Your task to perform on an android device: Clear all items from cart on amazon.com. Search for "bose soundlink mini" on amazon.com, select the first entry, and add it to the cart. Image 0: 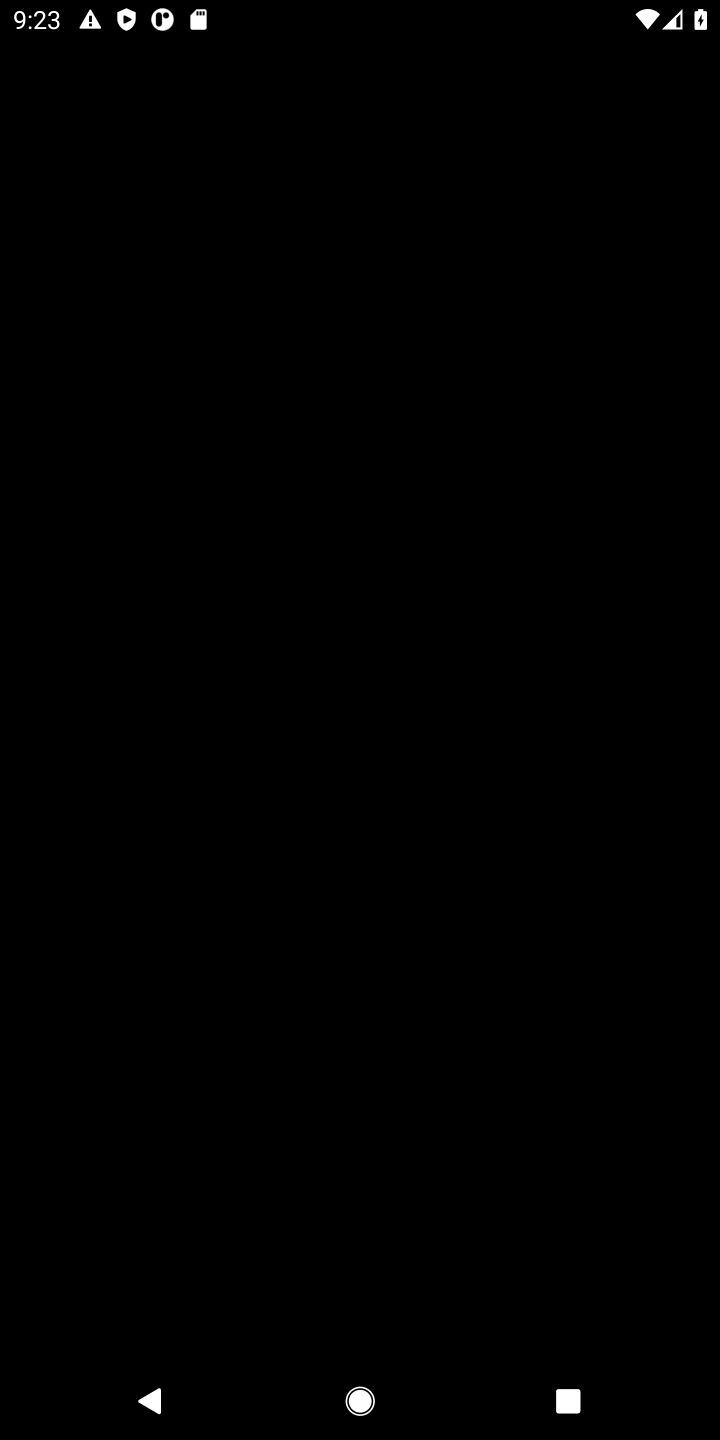
Step 0: press home button
Your task to perform on an android device: Clear all items from cart on amazon.com. Search for "bose soundlink mini" on amazon.com, select the first entry, and add it to the cart. Image 1: 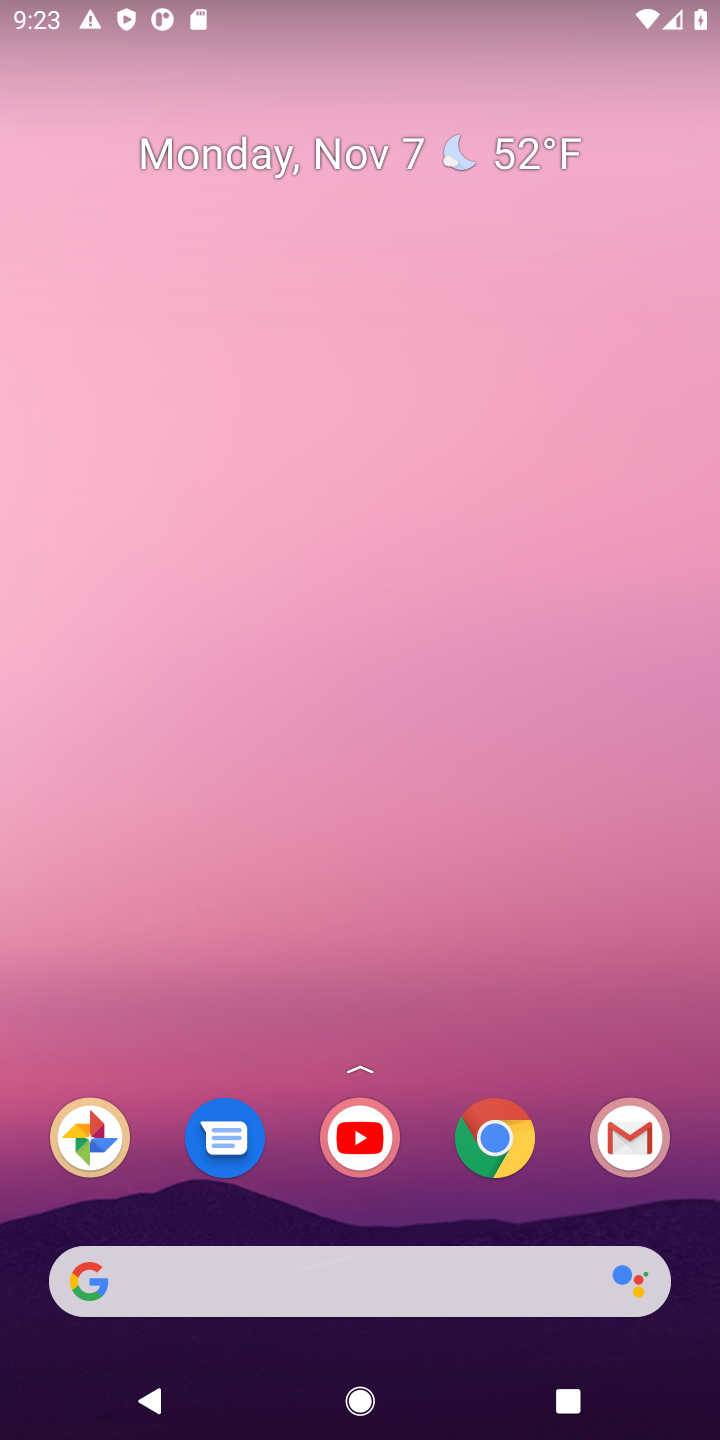
Step 1: drag from (423, 1148) to (367, 136)
Your task to perform on an android device: Clear all items from cart on amazon.com. Search for "bose soundlink mini" on amazon.com, select the first entry, and add it to the cart. Image 2: 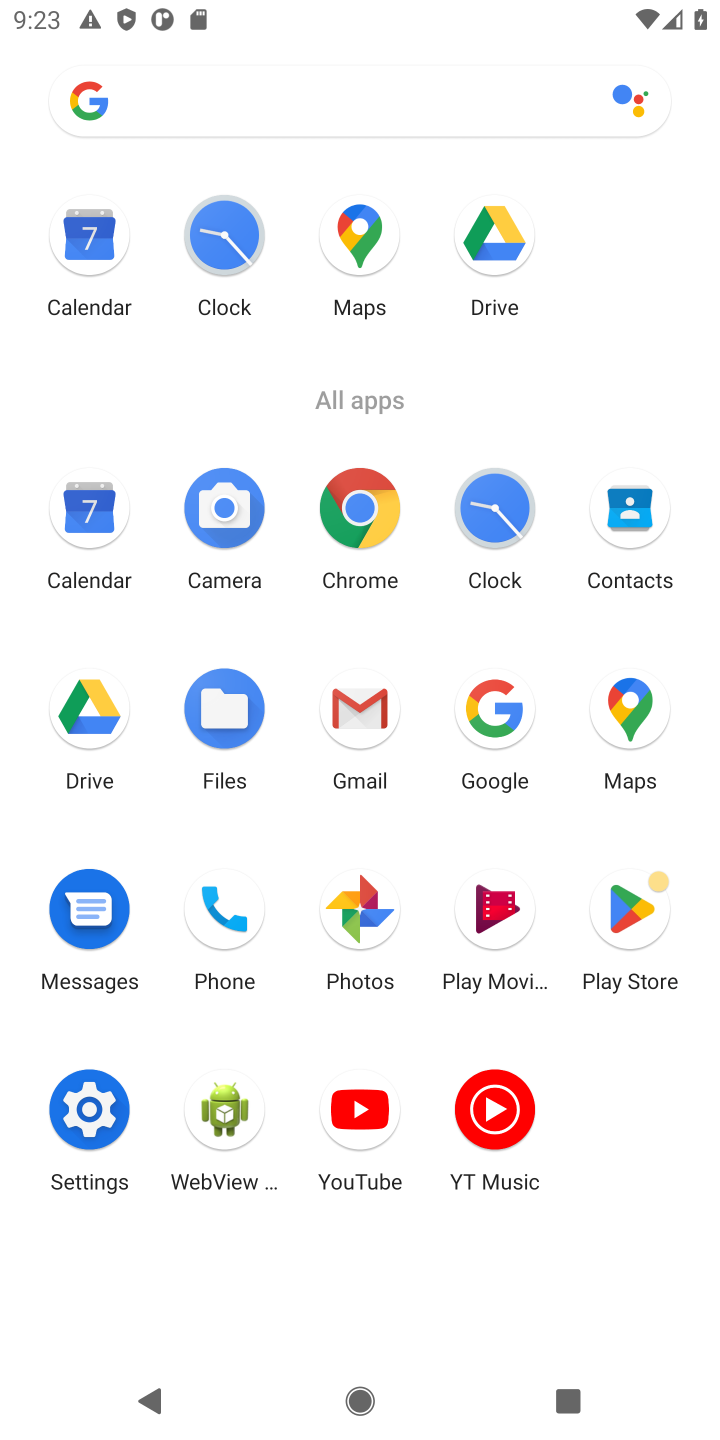
Step 2: click (361, 525)
Your task to perform on an android device: Clear all items from cart on amazon.com. Search for "bose soundlink mini" on amazon.com, select the first entry, and add it to the cart. Image 3: 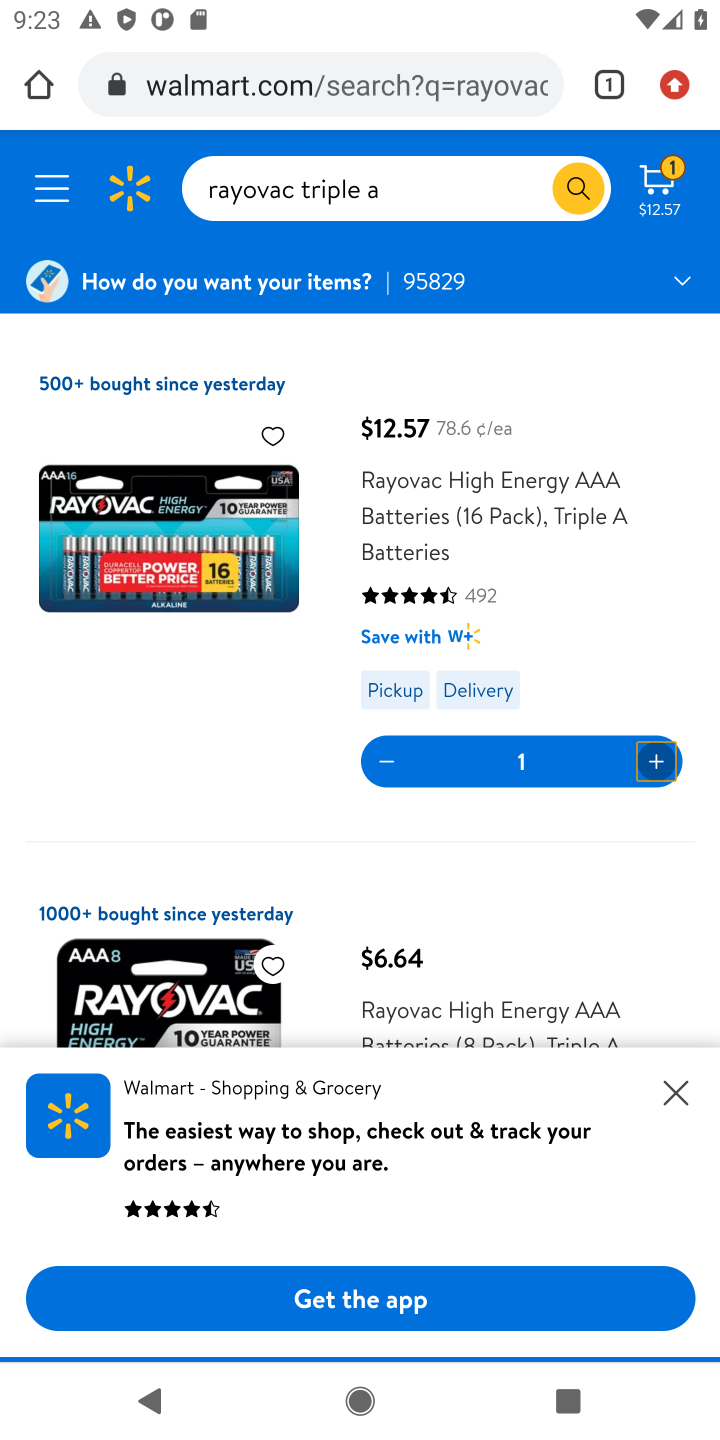
Step 3: click (375, 90)
Your task to perform on an android device: Clear all items from cart on amazon.com. Search for "bose soundlink mini" on amazon.com, select the first entry, and add it to the cart. Image 4: 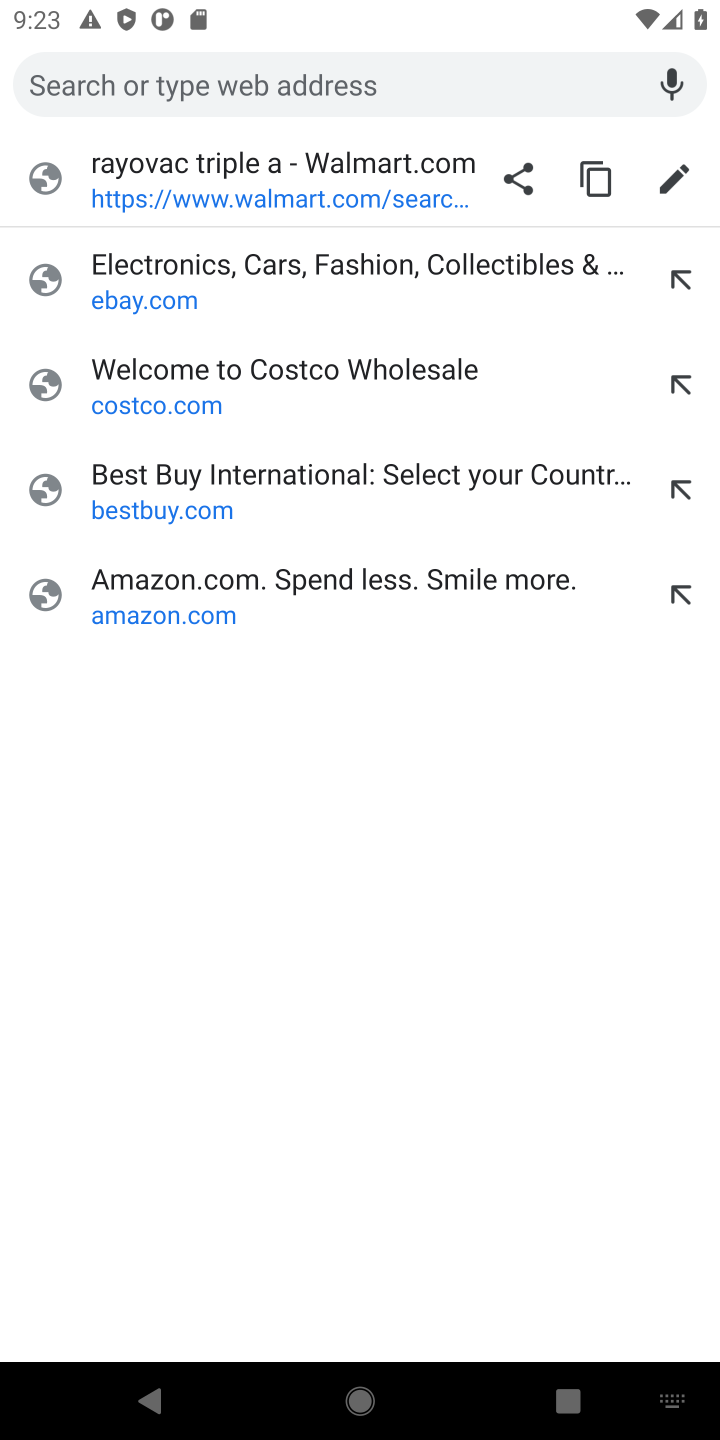
Step 4: type "amazon.com"
Your task to perform on an android device: Clear all items from cart on amazon.com. Search for "bose soundlink mini" on amazon.com, select the first entry, and add it to the cart. Image 5: 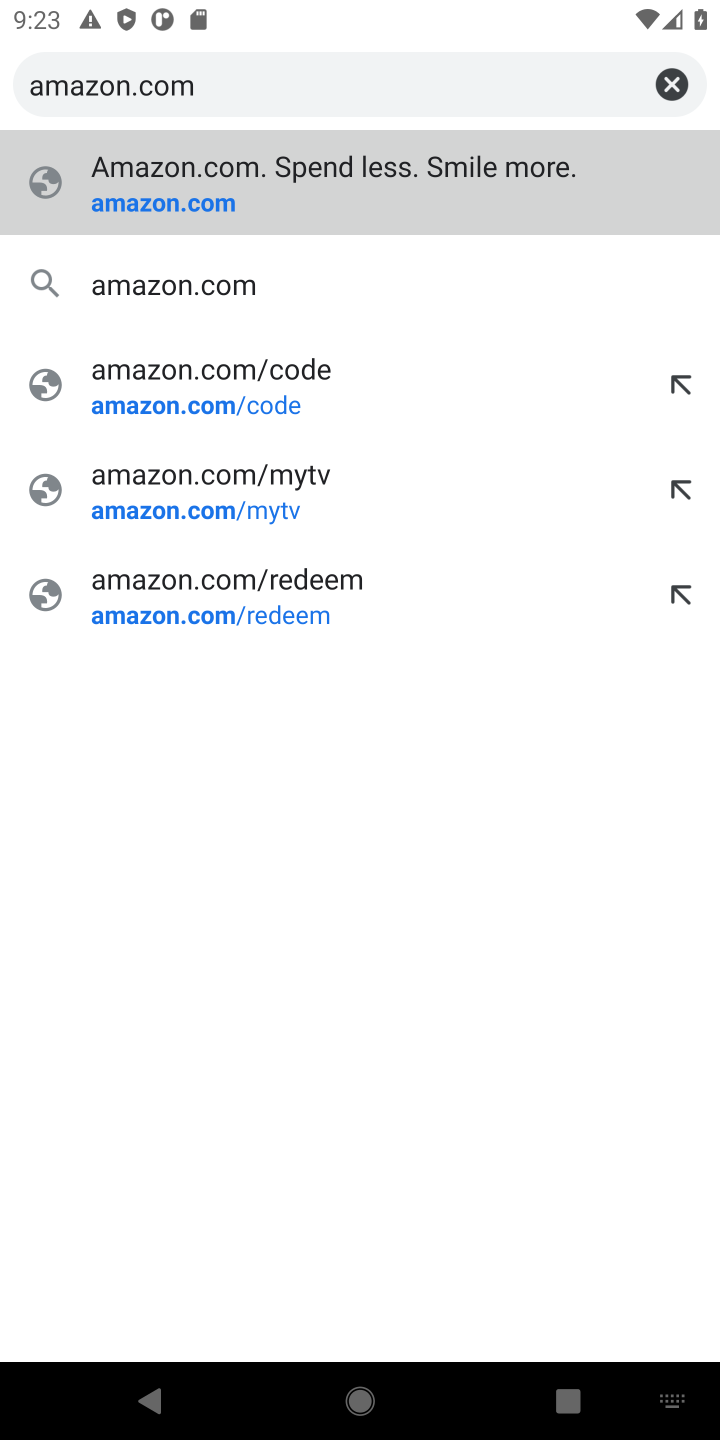
Step 5: press enter
Your task to perform on an android device: Clear all items from cart on amazon.com. Search for "bose soundlink mini" on amazon.com, select the first entry, and add it to the cart. Image 6: 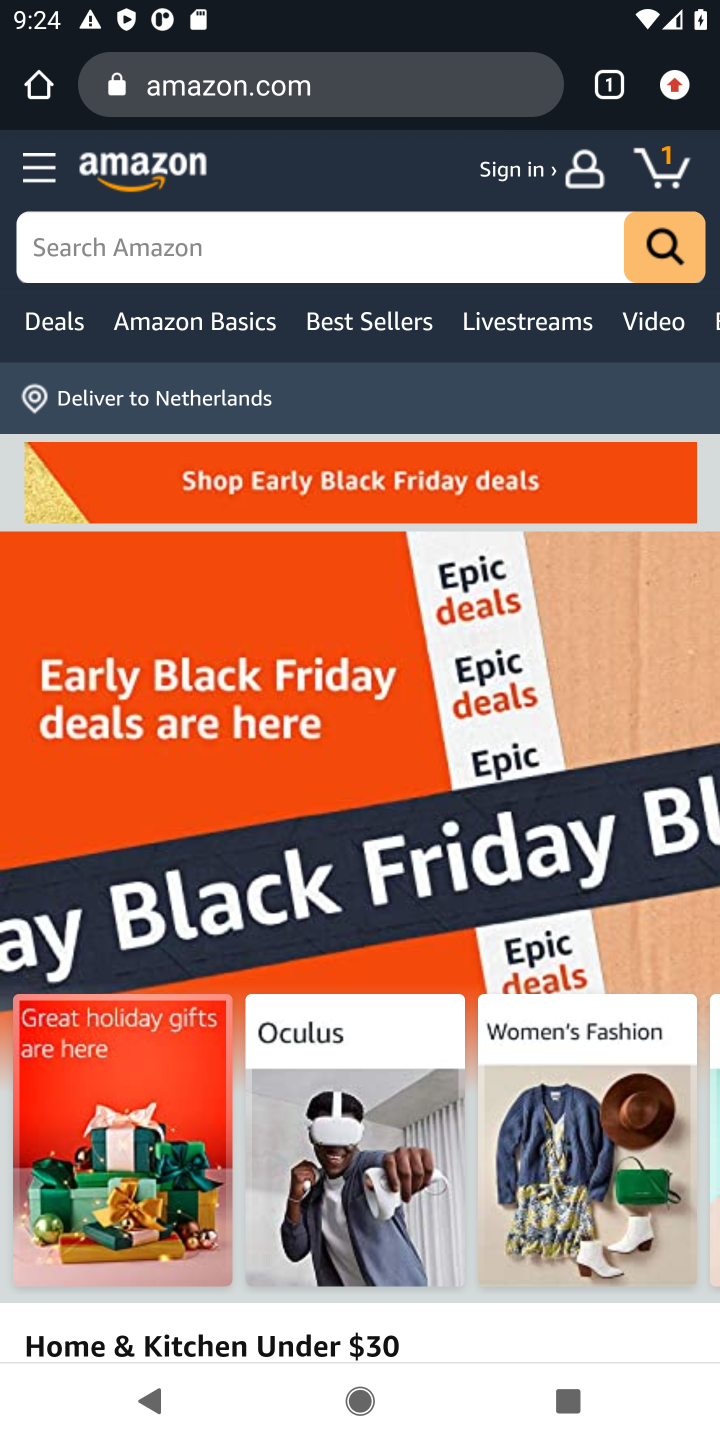
Step 6: click (652, 172)
Your task to perform on an android device: Clear all items from cart on amazon.com. Search for "bose soundlink mini" on amazon.com, select the first entry, and add it to the cart. Image 7: 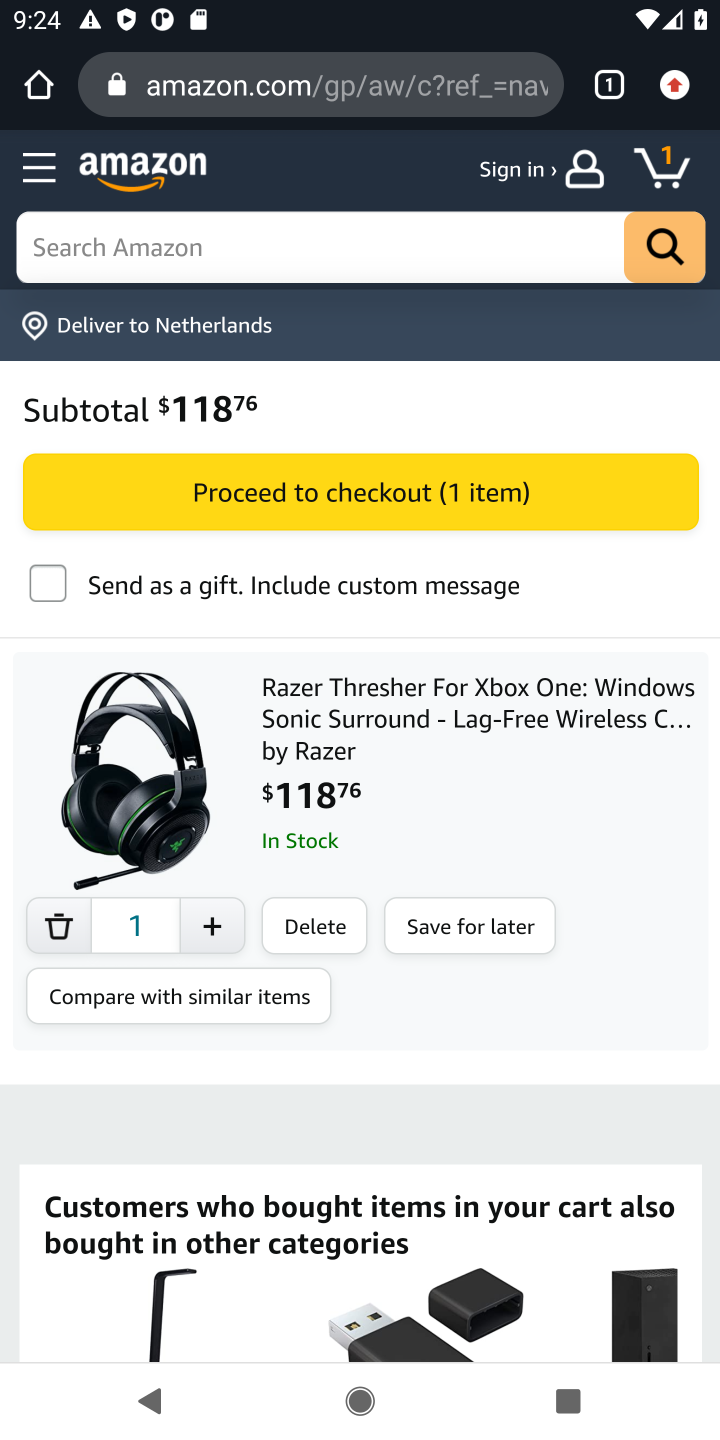
Step 7: click (55, 924)
Your task to perform on an android device: Clear all items from cart on amazon.com. Search for "bose soundlink mini" on amazon.com, select the first entry, and add it to the cart. Image 8: 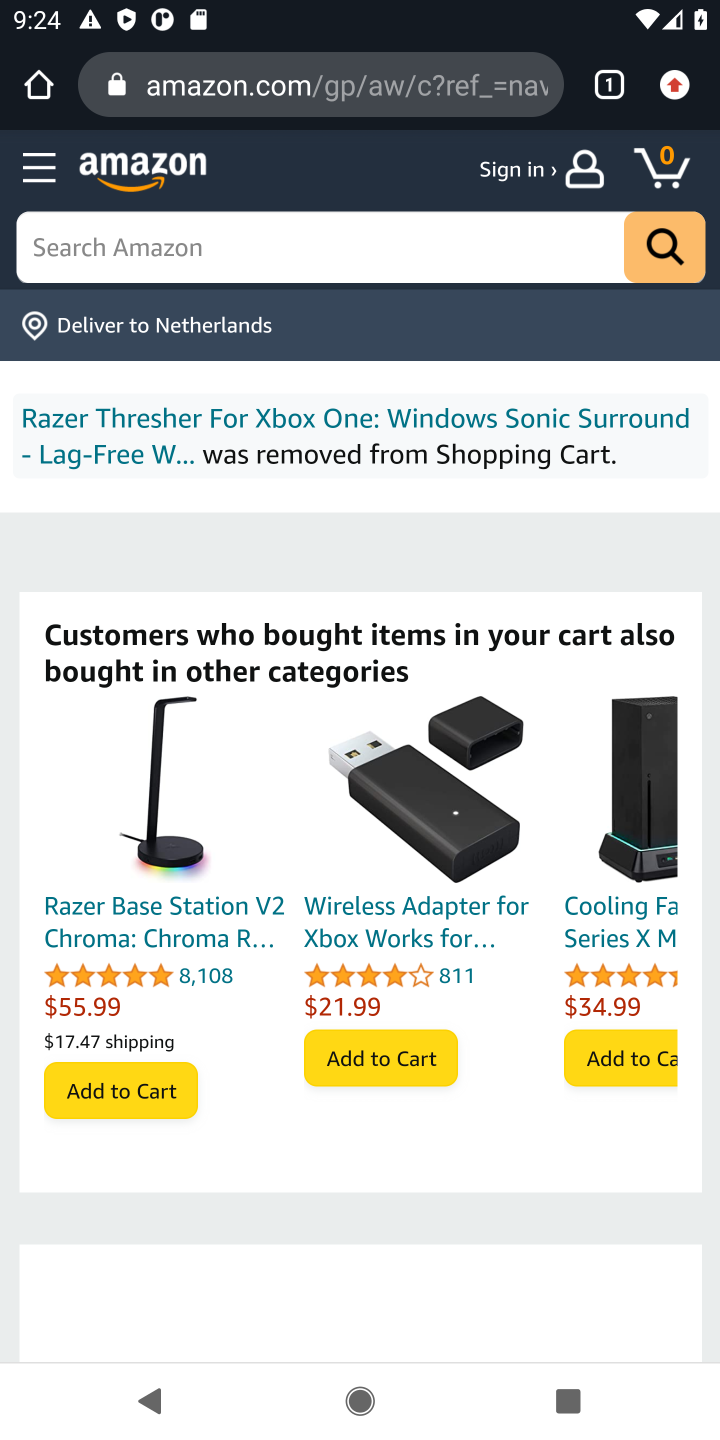
Step 8: click (457, 229)
Your task to perform on an android device: Clear all items from cart on amazon.com. Search for "bose soundlink mini" on amazon.com, select the first entry, and add it to the cart. Image 9: 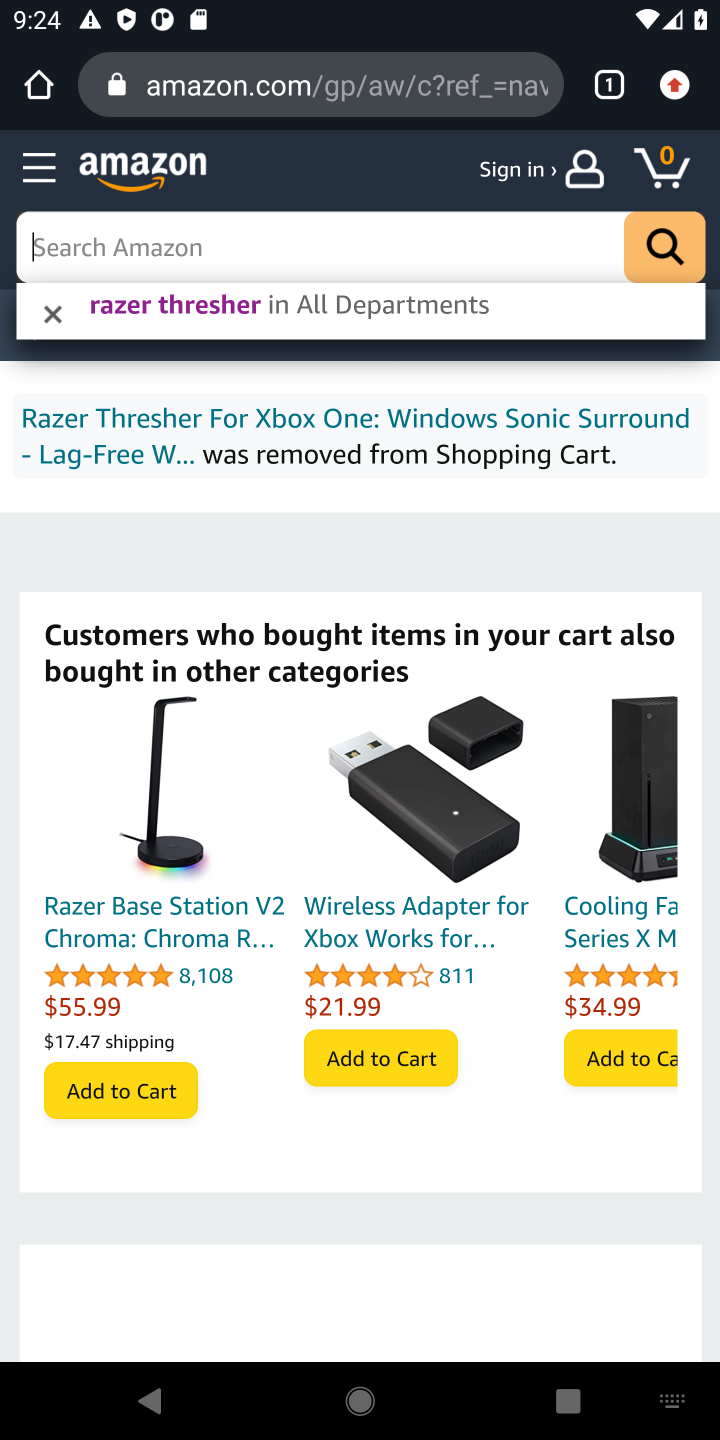
Step 9: type "bose soundlink mini"
Your task to perform on an android device: Clear all items from cart on amazon.com. Search for "bose soundlink mini" on amazon.com, select the first entry, and add it to the cart. Image 10: 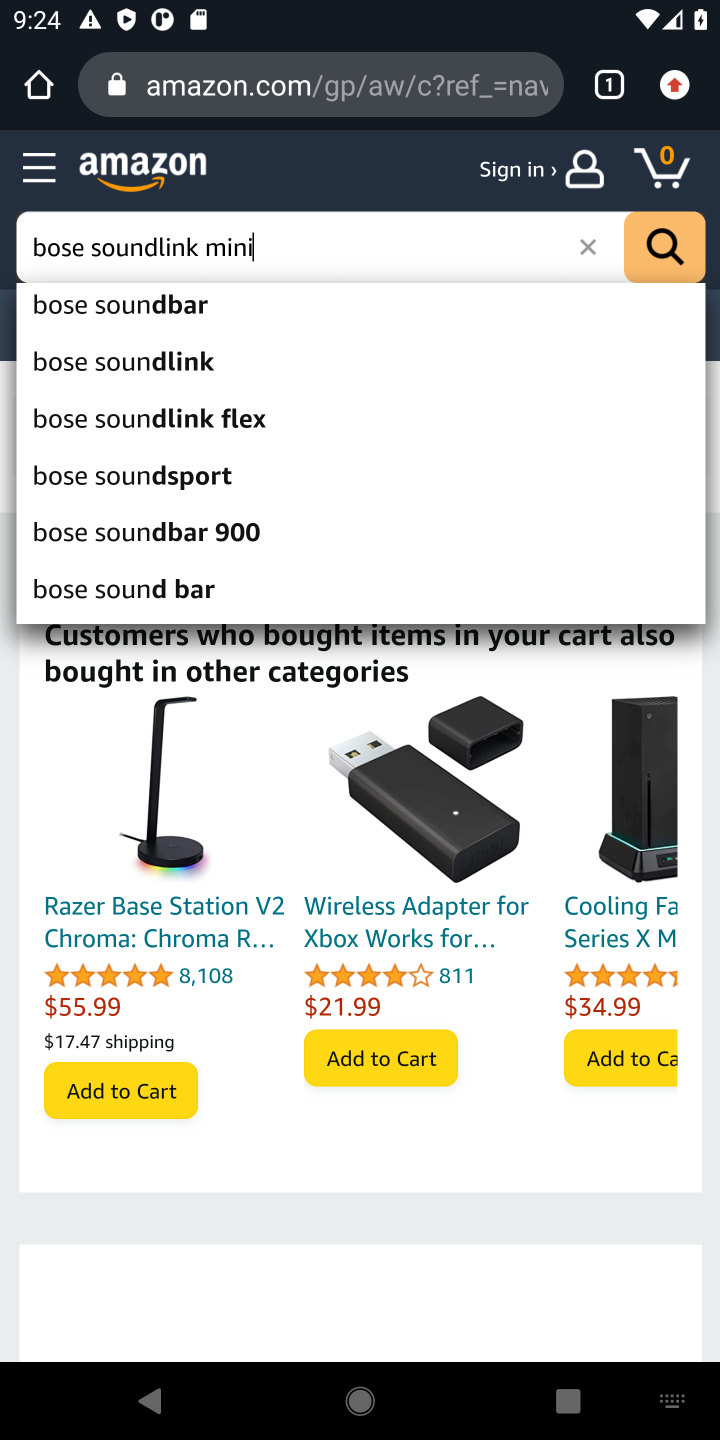
Step 10: press enter
Your task to perform on an android device: Clear all items from cart on amazon.com. Search for "bose soundlink mini" on amazon.com, select the first entry, and add it to the cart. Image 11: 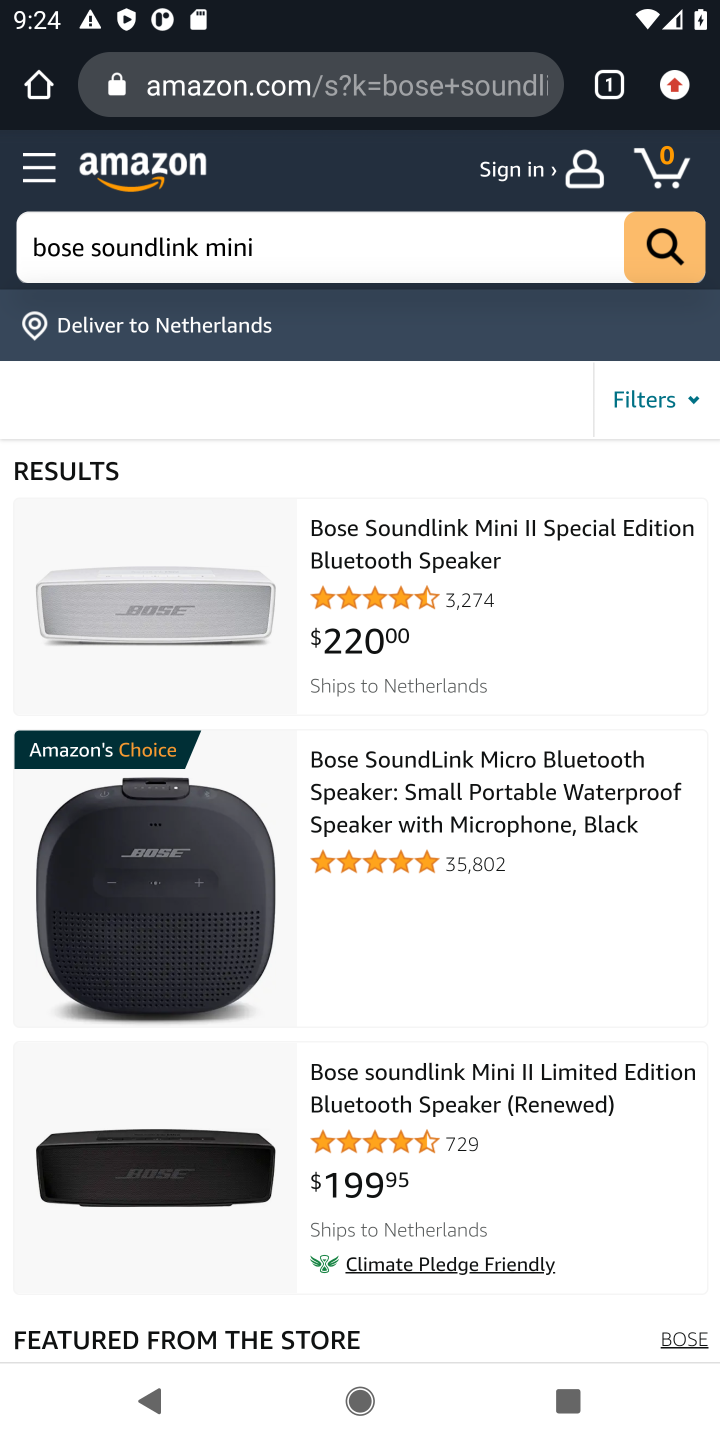
Step 11: click (244, 604)
Your task to perform on an android device: Clear all items from cart on amazon.com. Search for "bose soundlink mini" on amazon.com, select the first entry, and add it to the cart. Image 12: 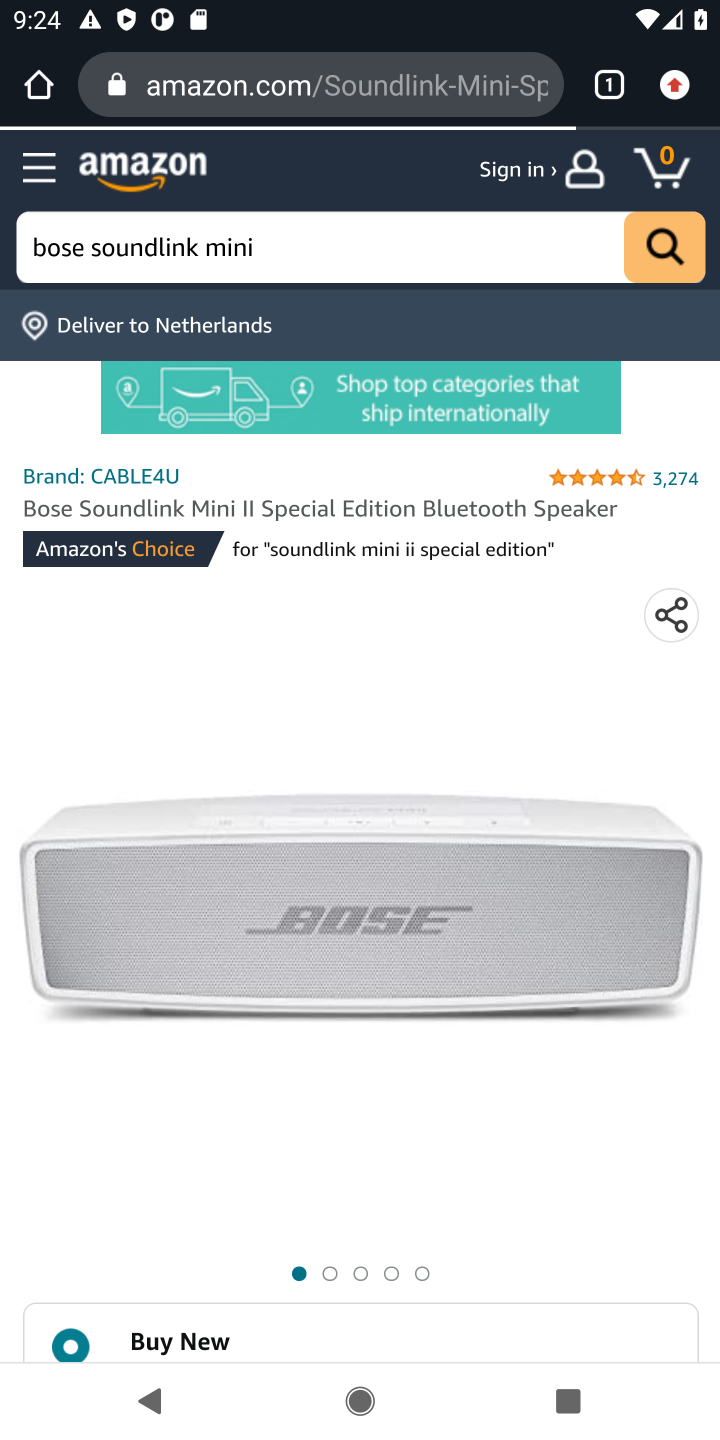
Step 12: drag from (125, 720) to (95, 355)
Your task to perform on an android device: Clear all items from cart on amazon.com. Search for "bose soundlink mini" on amazon.com, select the first entry, and add it to the cart. Image 13: 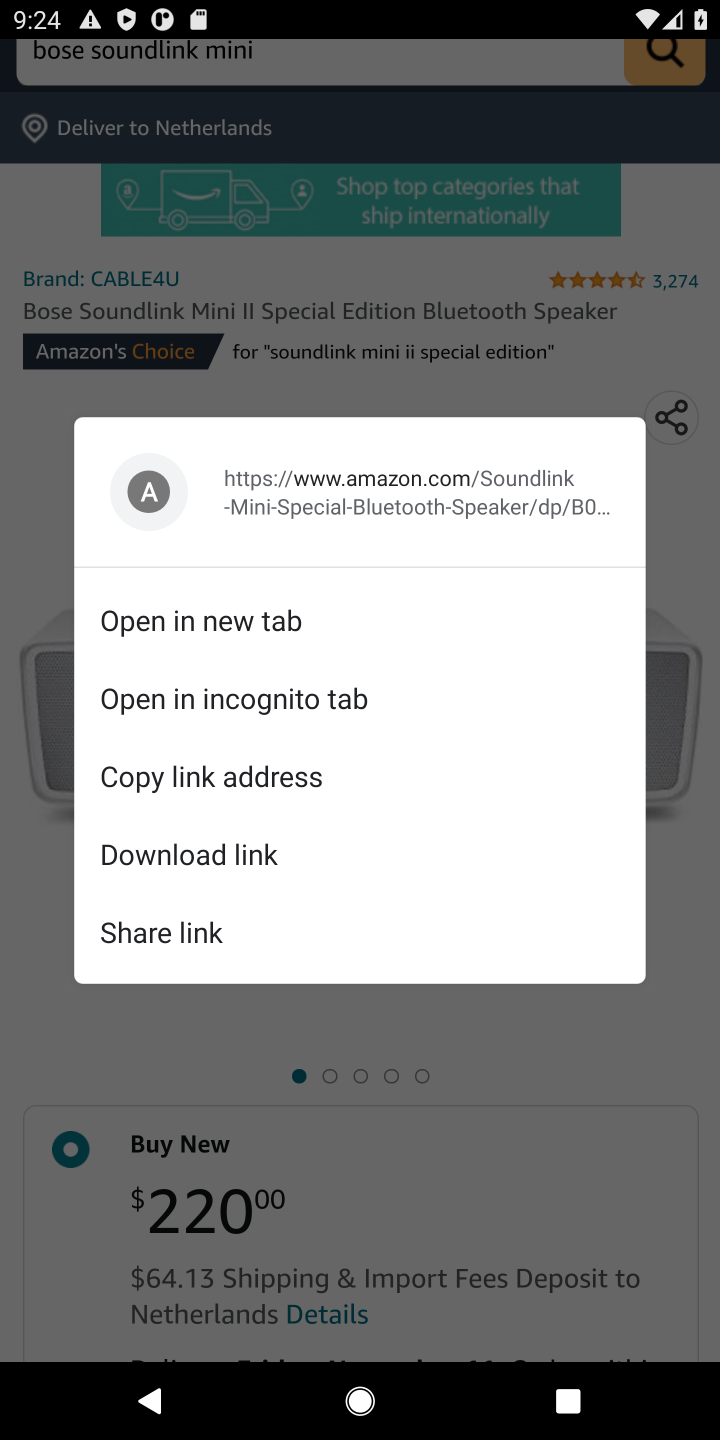
Step 13: drag from (427, 957) to (435, 355)
Your task to perform on an android device: Clear all items from cart on amazon.com. Search for "bose soundlink mini" on amazon.com, select the first entry, and add it to the cart. Image 14: 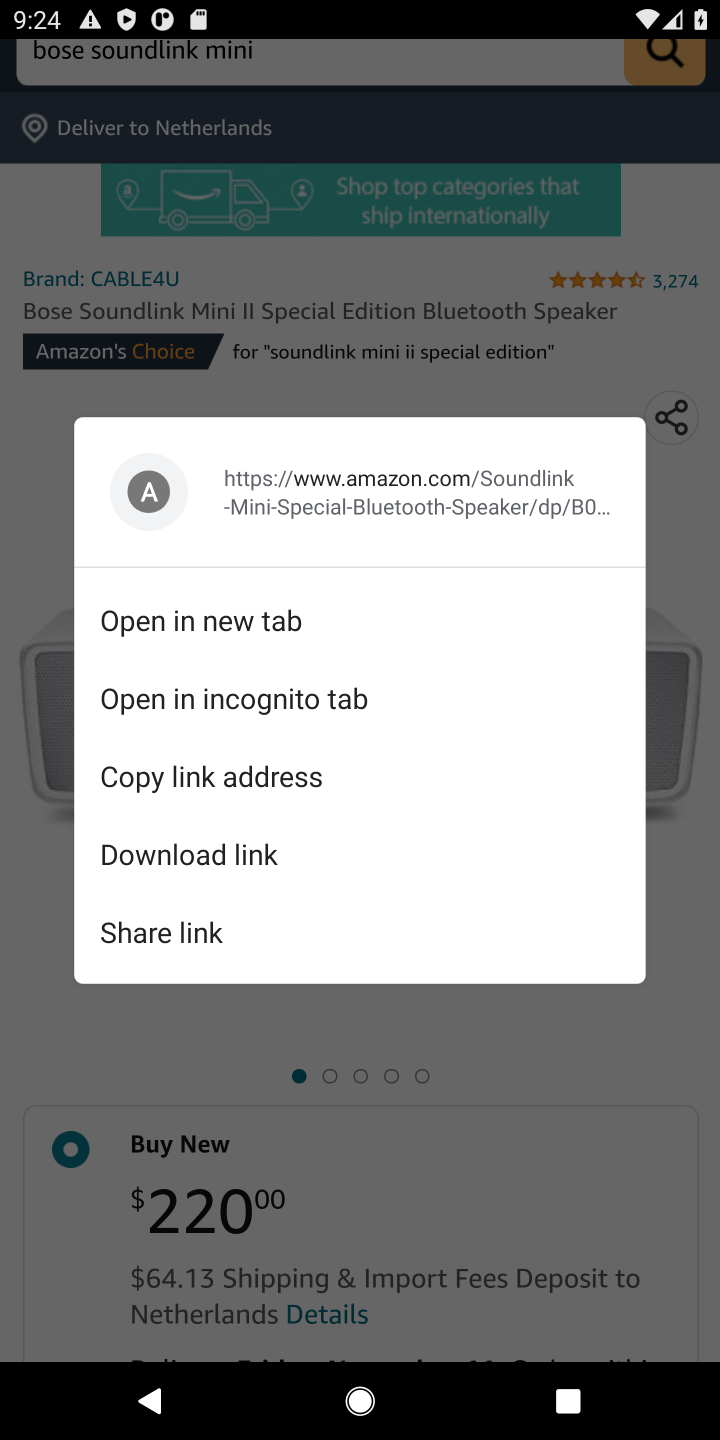
Step 14: click (532, 1190)
Your task to perform on an android device: Clear all items from cart on amazon.com. Search for "bose soundlink mini" on amazon.com, select the first entry, and add it to the cart. Image 15: 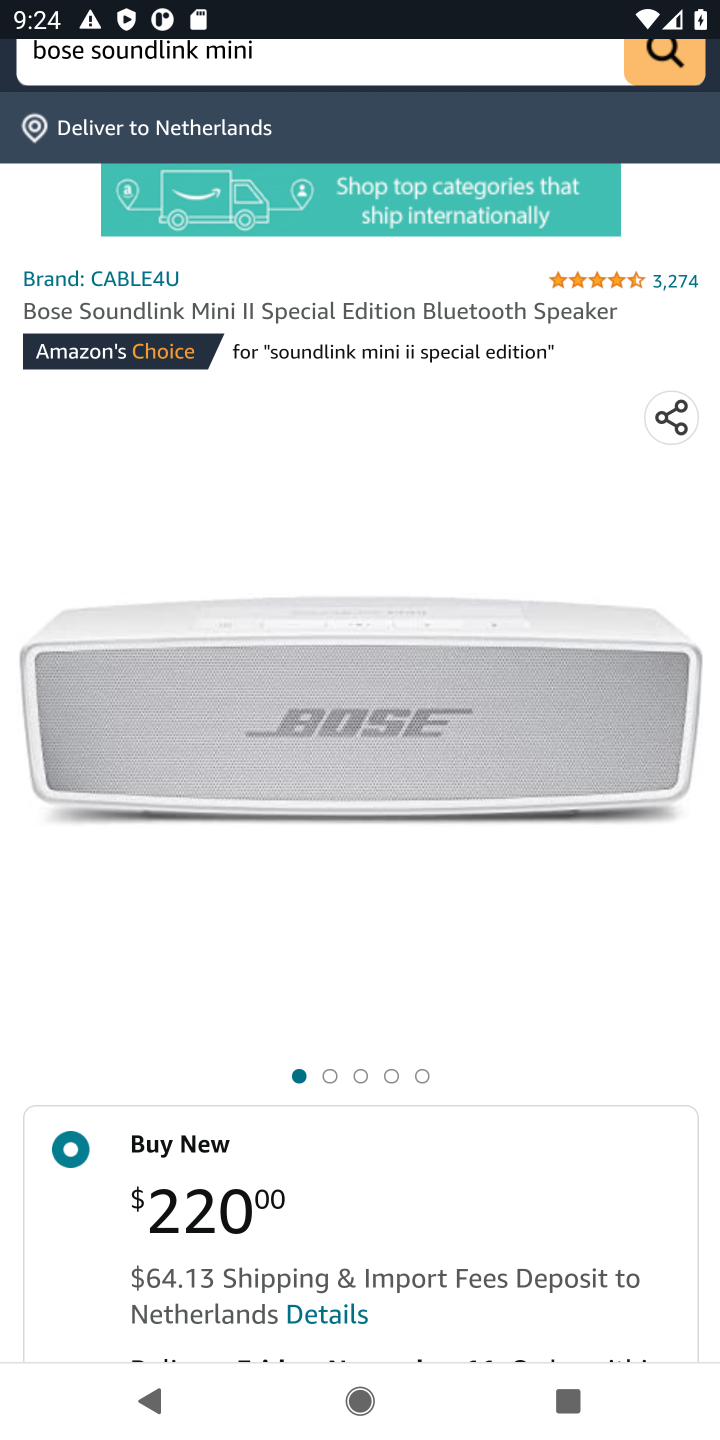
Step 15: drag from (532, 1190) to (524, 326)
Your task to perform on an android device: Clear all items from cart on amazon.com. Search for "bose soundlink mini" on amazon.com, select the first entry, and add it to the cart. Image 16: 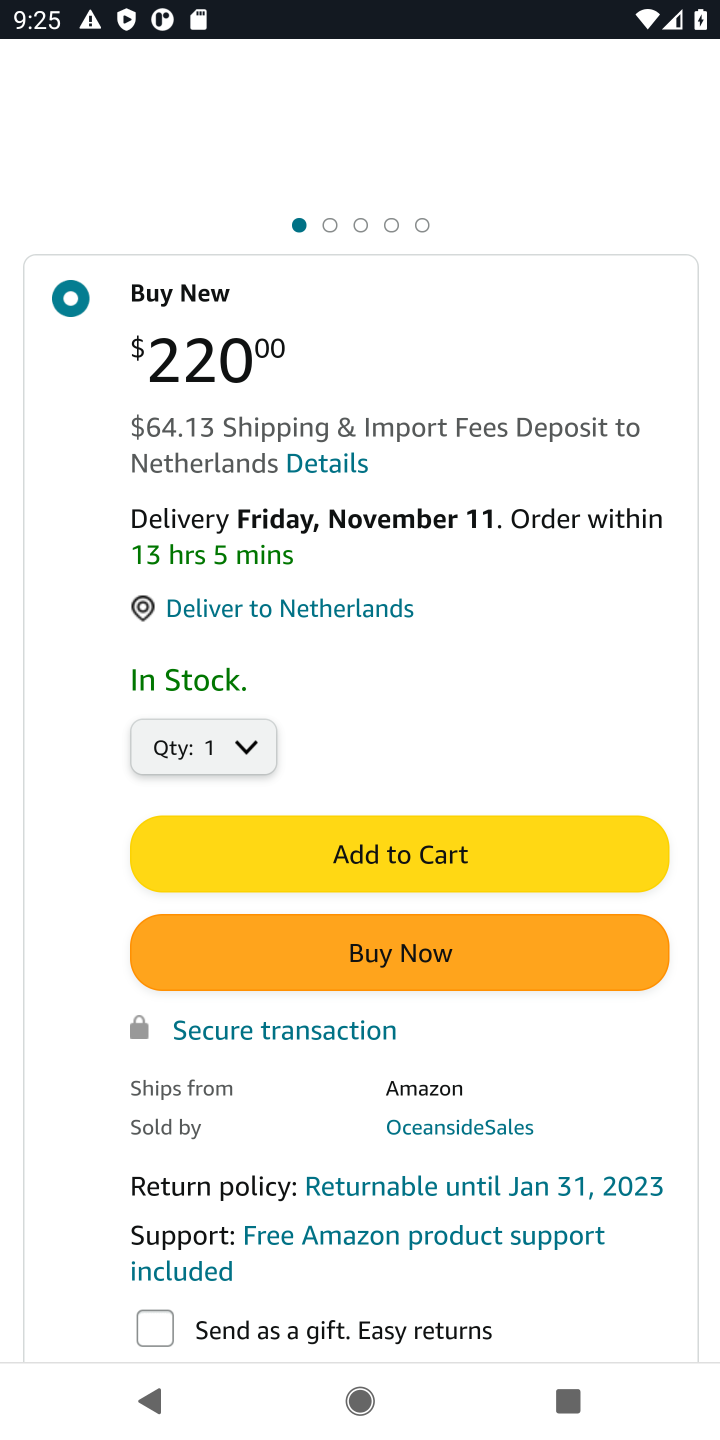
Step 16: click (462, 847)
Your task to perform on an android device: Clear all items from cart on amazon.com. Search for "bose soundlink mini" on amazon.com, select the first entry, and add it to the cart. Image 17: 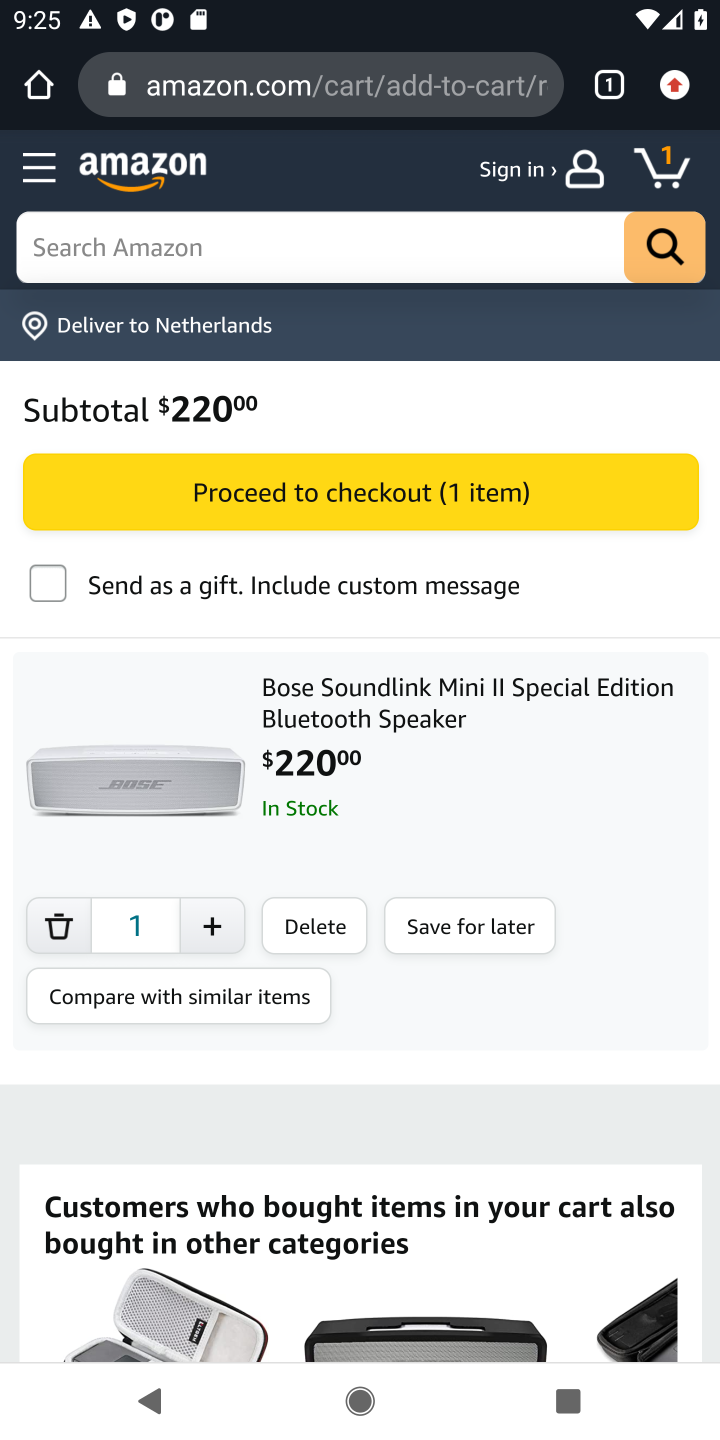
Step 17: task complete